Your task to perform on an android device: turn off priority inbox in the gmail app Image 0: 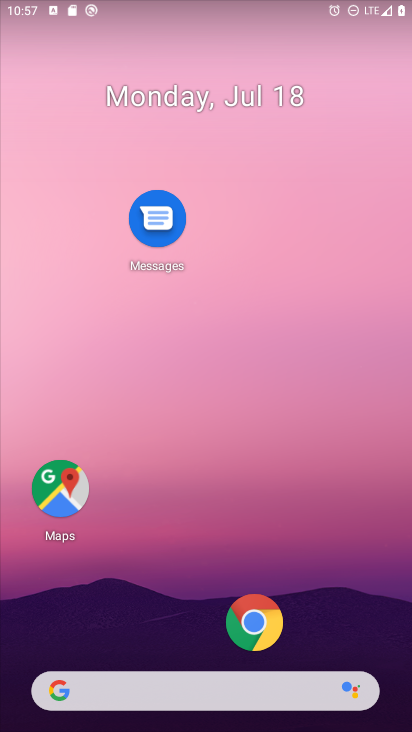
Step 0: drag from (139, 657) to (201, 160)
Your task to perform on an android device: turn off priority inbox in the gmail app Image 1: 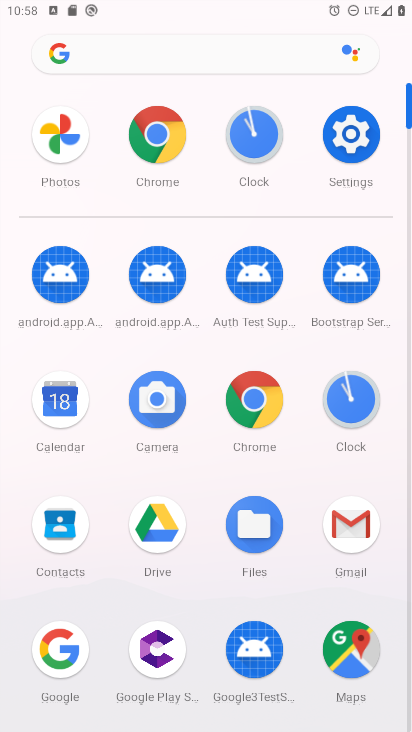
Step 1: click (358, 519)
Your task to perform on an android device: turn off priority inbox in the gmail app Image 2: 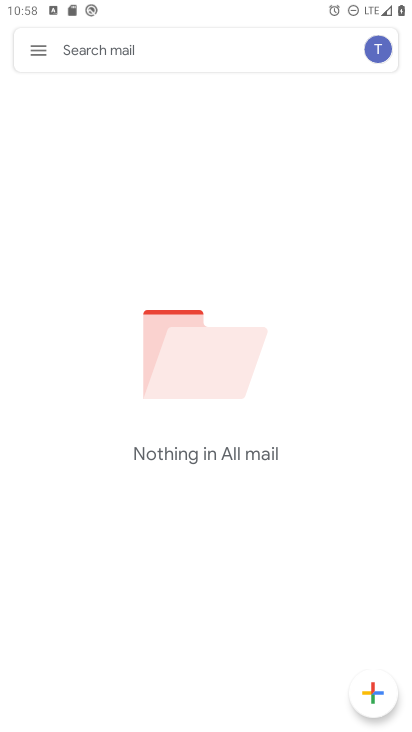
Step 2: press home button
Your task to perform on an android device: turn off priority inbox in the gmail app Image 3: 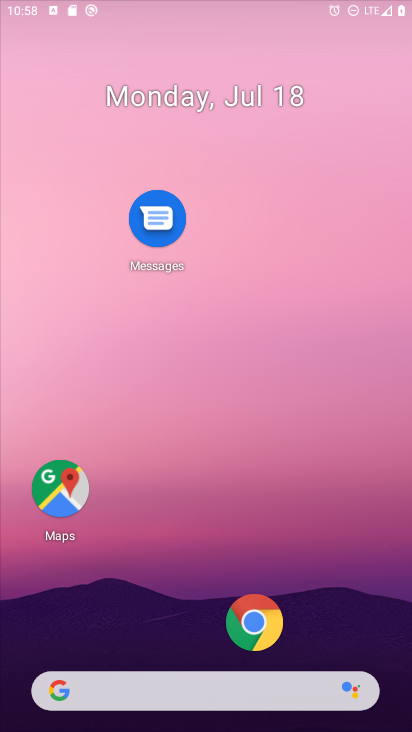
Step 3: drag from (210, 669) to (297, 88)
Your task to perform on an android device: turn off priority inbox in the gmail app Image 4: 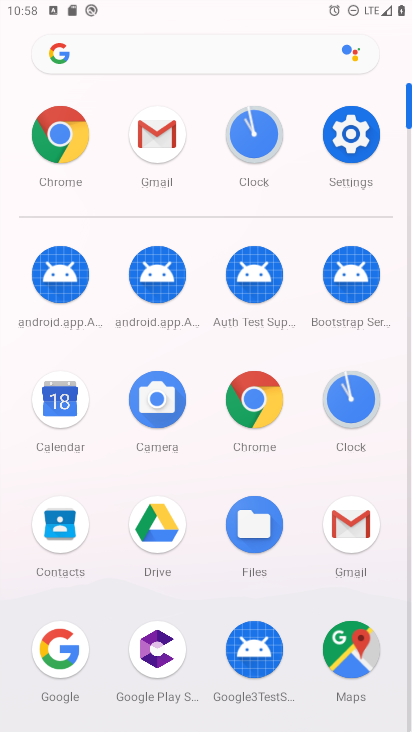
Step 4: click (366, 517)
Your task to perform on an android device: turn off priority inbox in the gmail app Image 5: 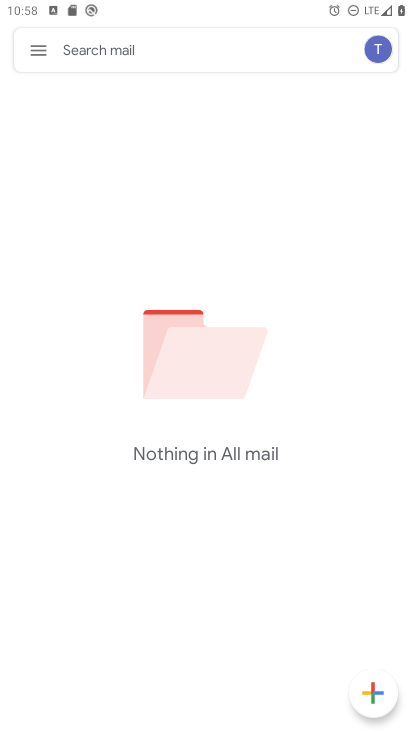
Step 5: drag from (232, 359) to (241, 311)
Your task to perform on an android device: turn off priority inbox in the gmail app Image 6: 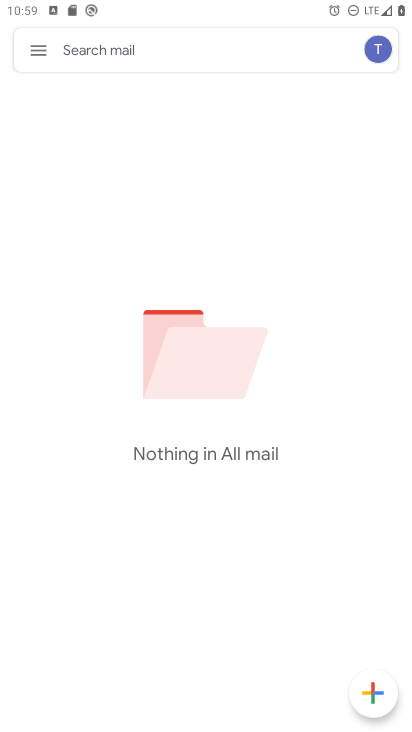
Step 6: click (43, 62)
Your task to perform on an android device: turn off priority inbox in the gmail app Image 7: 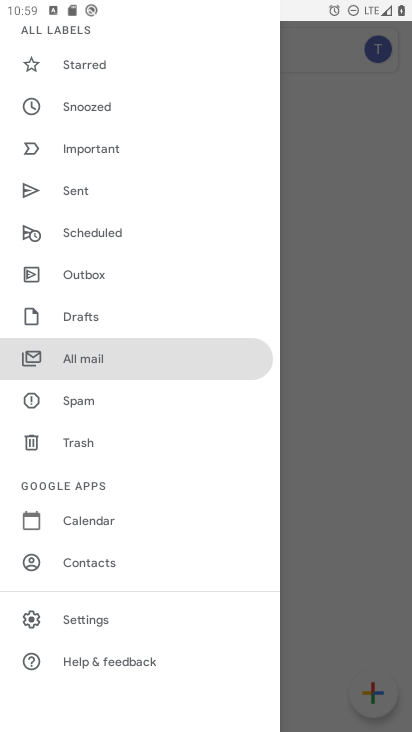
Step 7: click (88, 621)
Your task to perform on an android device: turn off priority inbox in the gmail app Image 8: 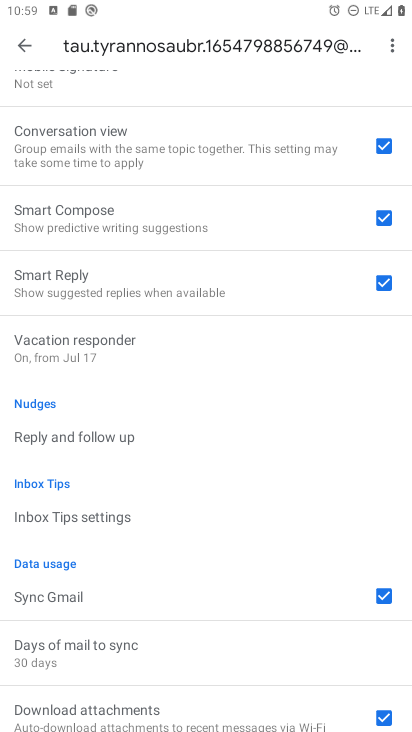
Step 8: drag from (131, 554) to (129, 393)
Your task to perform on an android device: turn off priority inbox in the gmail app Image 9: 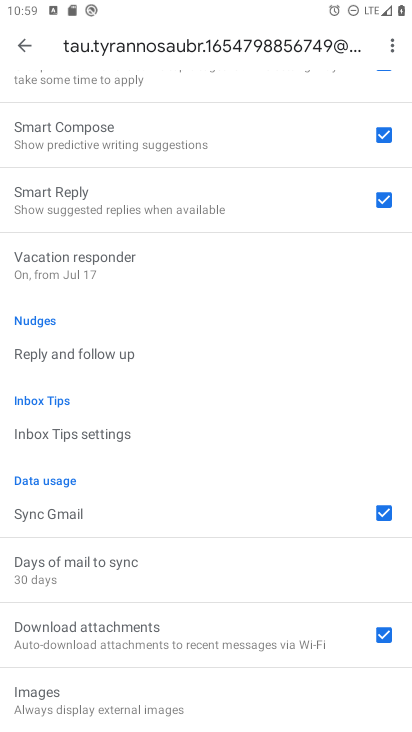
Step 9: drag from (113, 233) to (94, 706)
Your task to perform on an android device: turn off priority inbox in the gmail app Image 10: 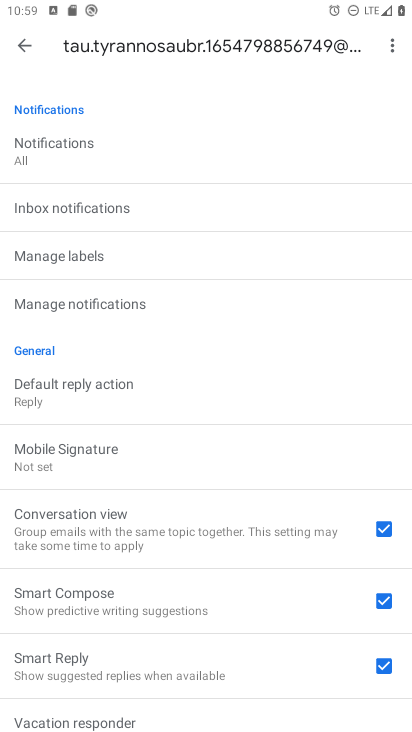
Step 10: drag from (114, 271) to (131, 535)
Your task to perform on an android device: turn off priority inbox in the gmail app Image 11: 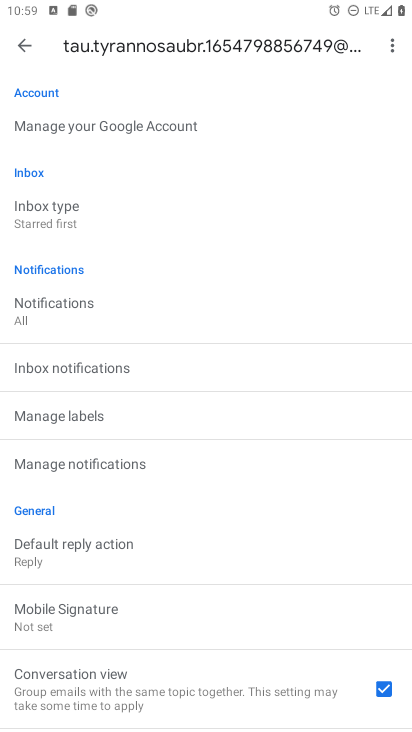
Step 11: click (73, 233)
Your task to perform on an android device: turn off priority inbox in the gmail app Image 12: 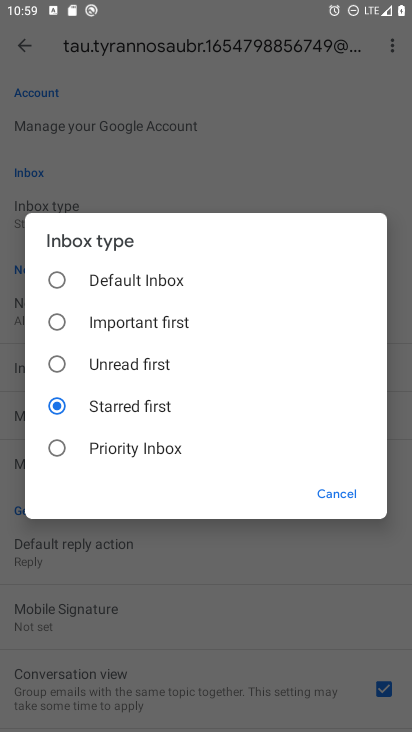
Step 12: click (46, 328)
Your task to perform on an android device: turn off priority inbox in the gmail app Image 13: 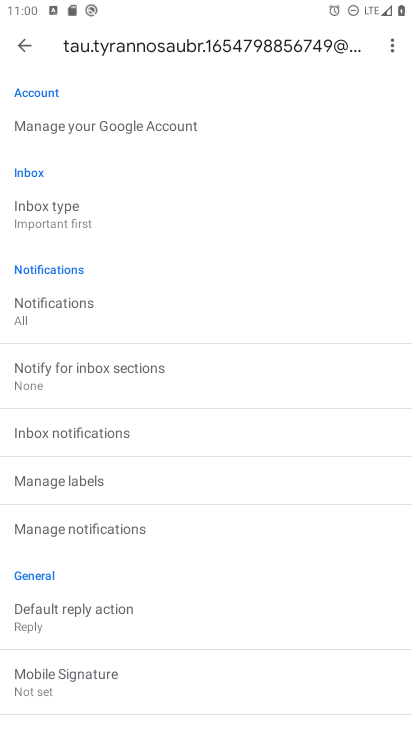
Step 13: task complete